Your task to perform on an android device: check battery use Image 0: 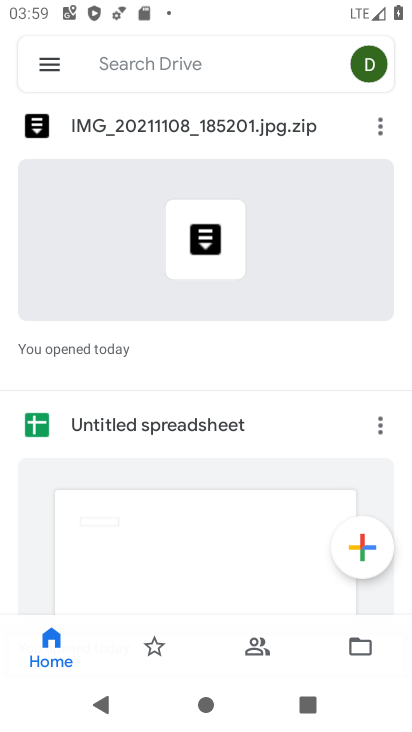
Step 0: press home button
Your task to perform on an android device: check battery use Image 1: 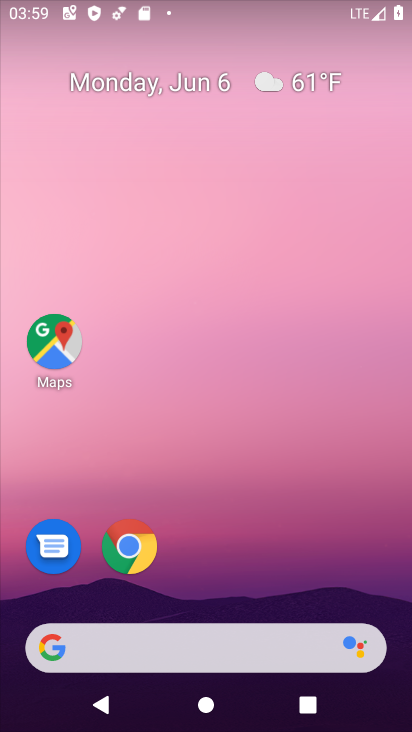
Step 1: drag from (220, 608) to (225, 196)
Your task to perform on an android device: check battery use Image 2: 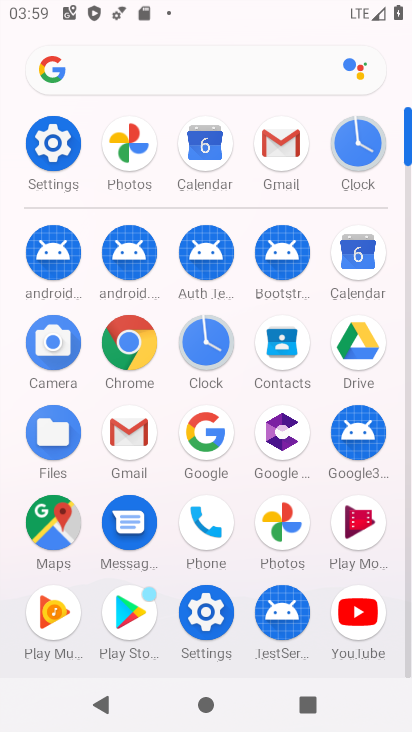
Step 2: click (52, 146)
Your task to perform on an android device: check battery use Image 3: 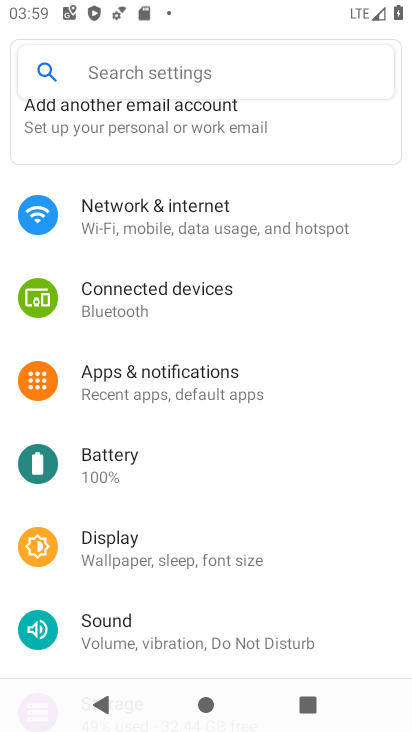
Step 3: click (110, 453)
Your task to perform on an android device: check battery use Image 4: 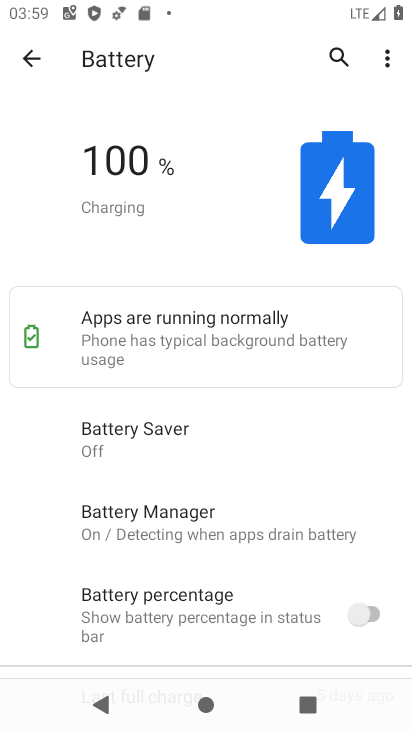
Step 4: click (389, 55)
Your task to perform on an android device: check battery use Image 5: 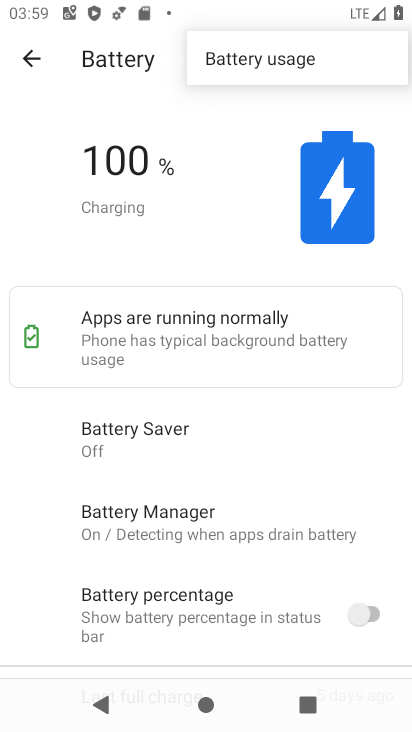
Step 5: click (264, 68)
Your task to perform on an android device: check battery use Image 6: 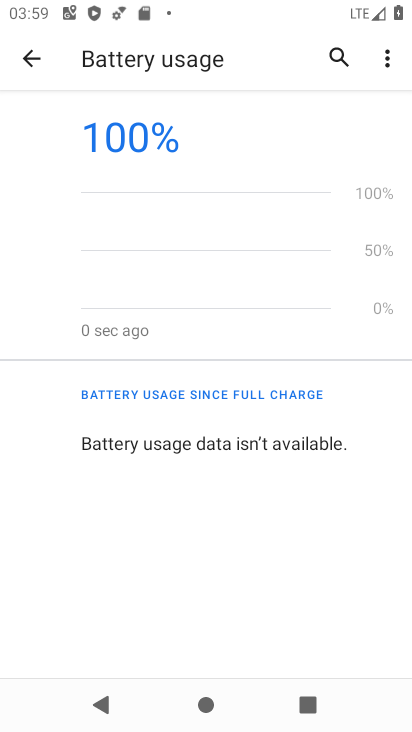
Step 6: task complete